Your task to perform on an android device: Search for Italian restaurants on Maps Image 0: 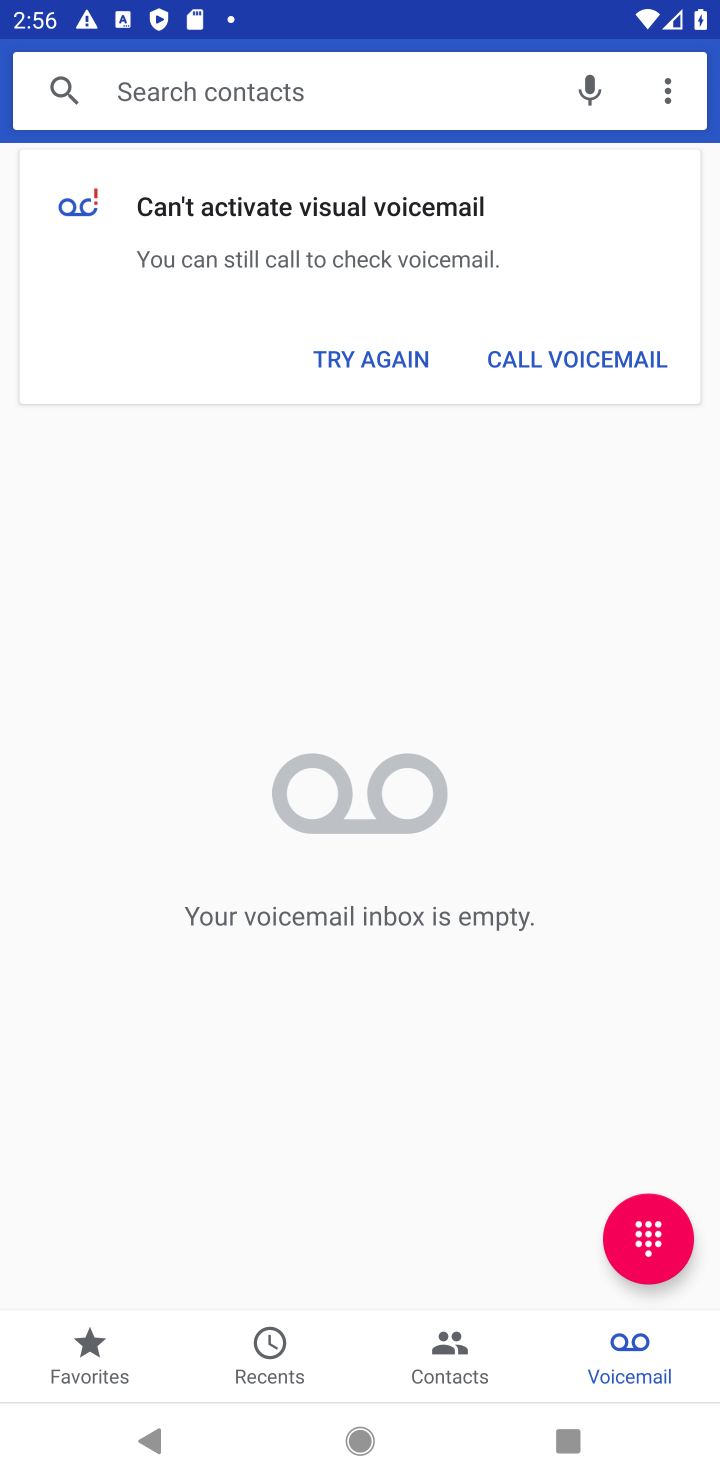
Step 0: press home button
Your task to perform on an android device: Search for Italian restaurants on Maps Image 1: 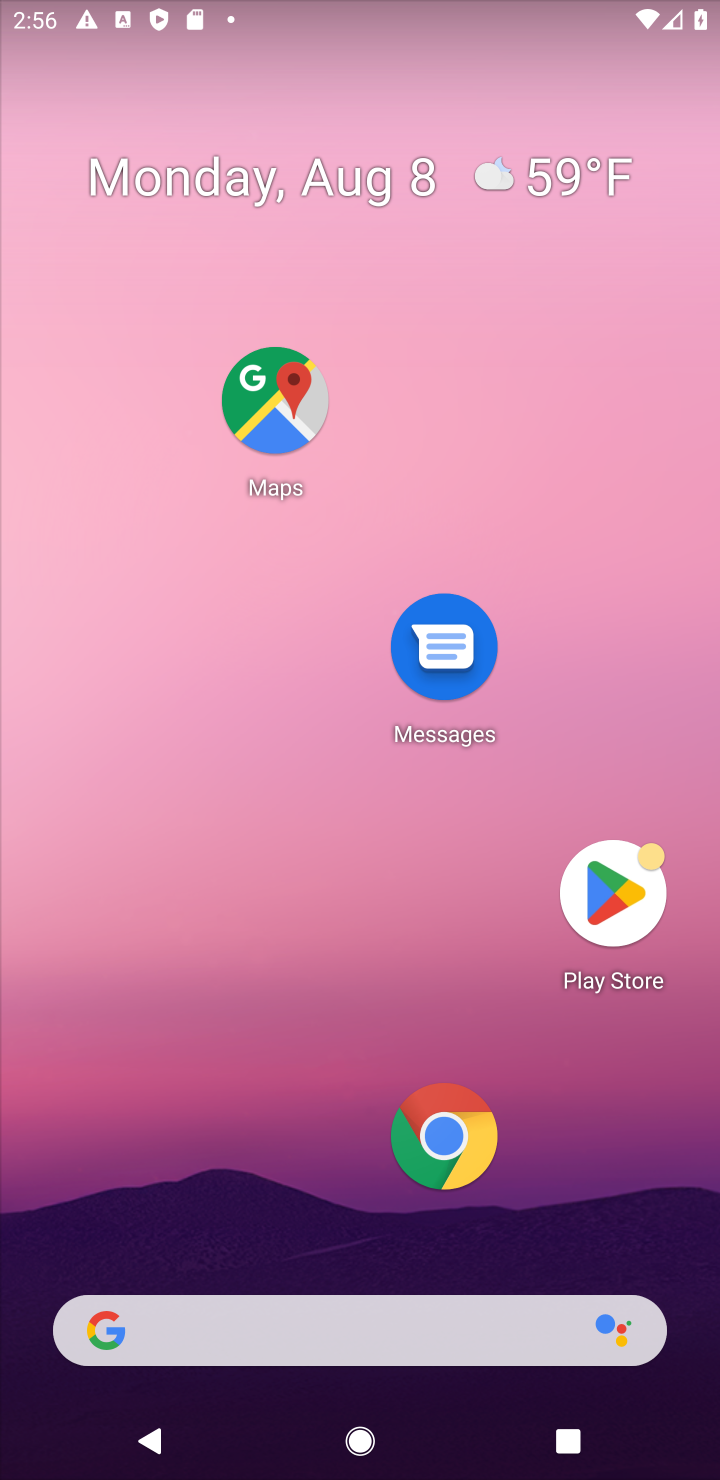
Step 1: click (307, 406)
Your task to perform on an android device: Search for Italian restaurants on Maps Image 2: 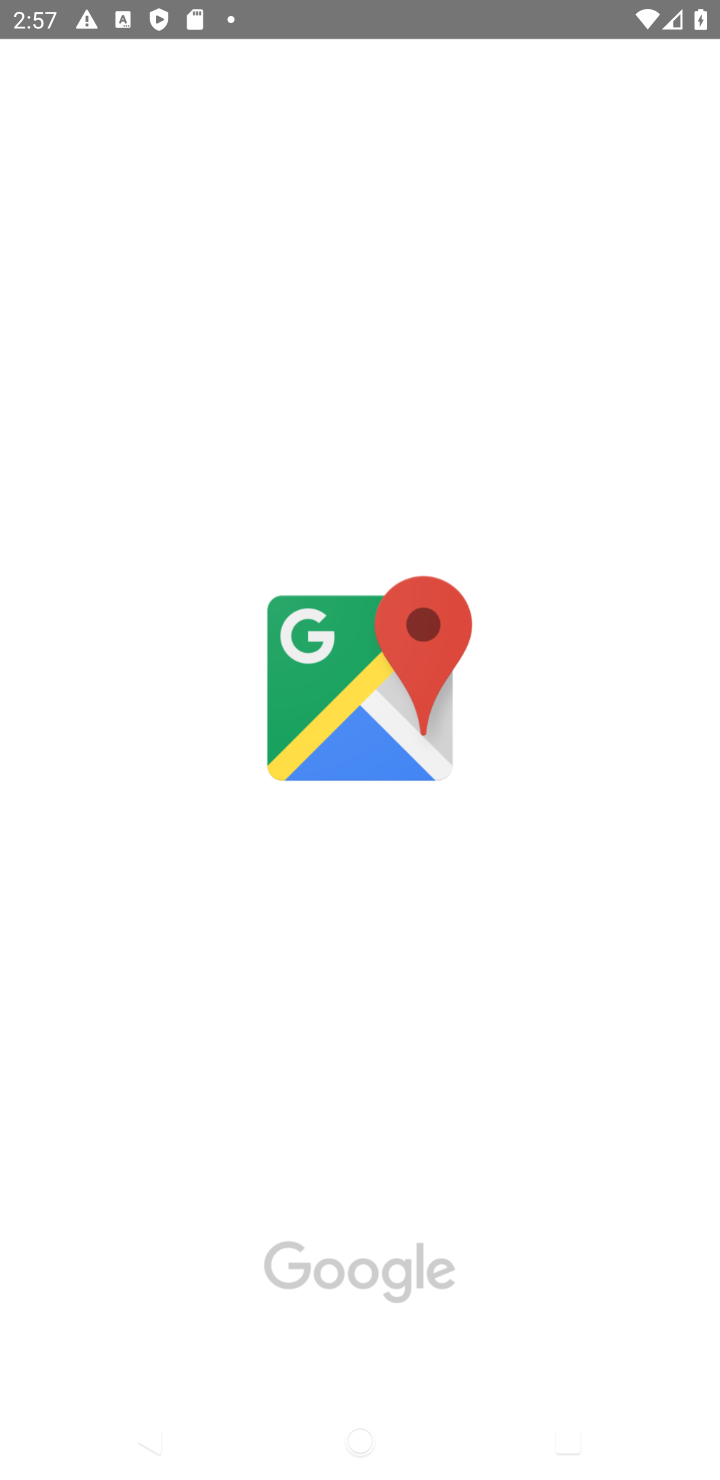
Step 2: task complete